Your task to perform on an android device: Open Chrome and go to the settings page Image 0: 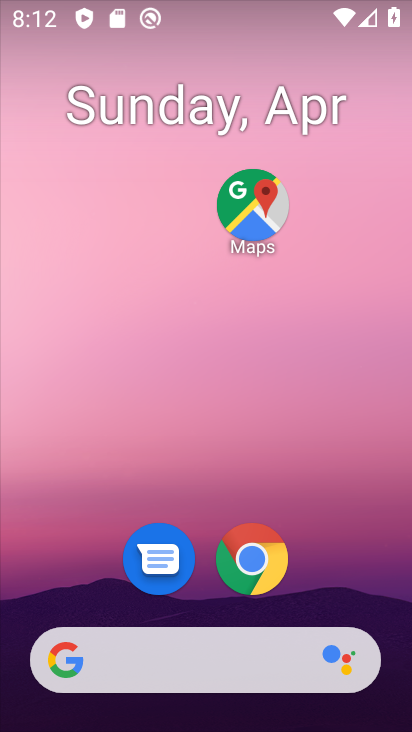
Step 0: click (269, 559)
Your task to perform on an android device: Open Chrome and go to the settings page Image 1: 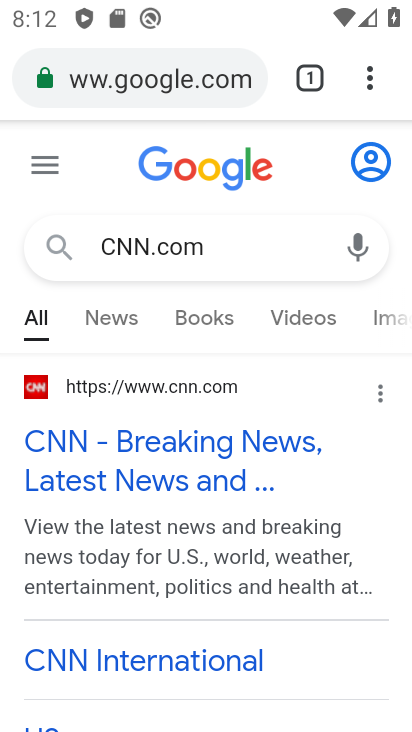
Step 1: click (374, 78)
Your task to perform on an android device: Open Chrome and go to the settings page Image 2: 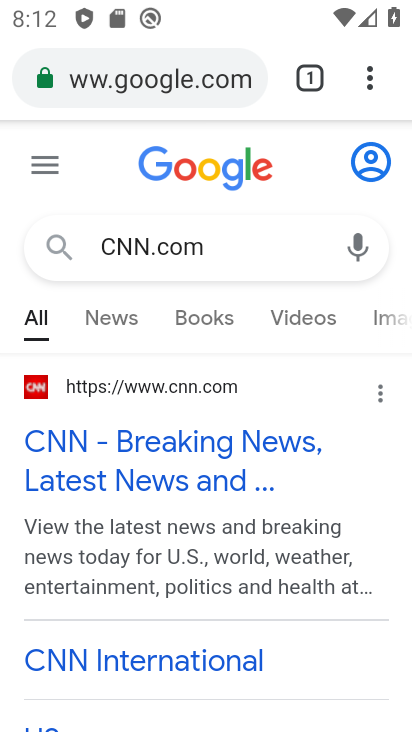
Step 2: click (359, 83)
Your task to perform on an android device: Open Chrome and go to the settings page Image 3: 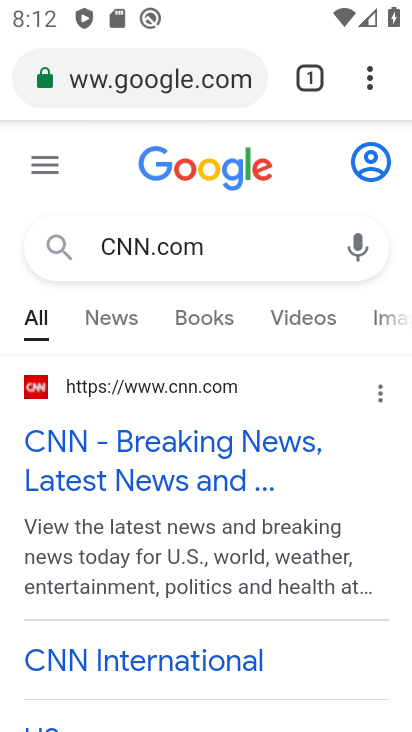
Step 3: click (369, 78)
Your task to perform on an android device: Open Chrome and go to the settings page Image 4: 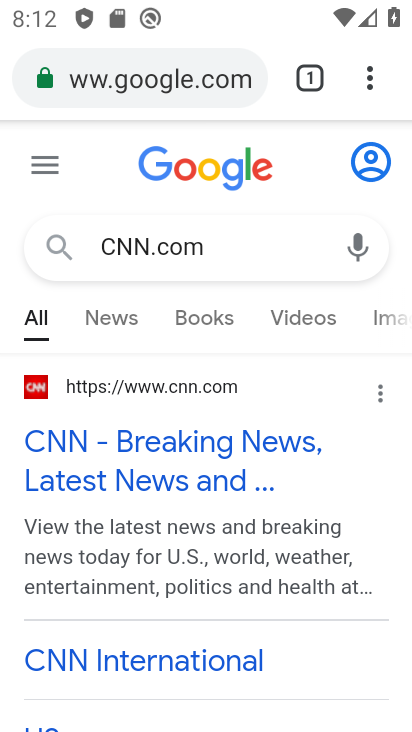
Step 4: click (367, 84)
Your task to perform on an android device: Open Chrome and go to the settings page Image 5: 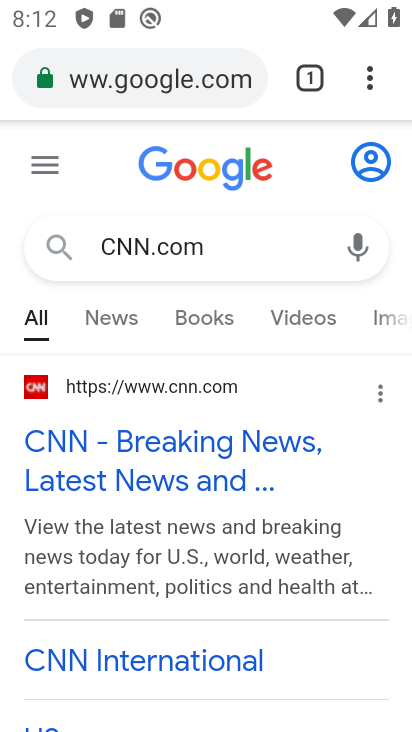
Step 5: click (363, 72)
Your task to perform on an android device: Open Chrome and go to the settings page Image 6: 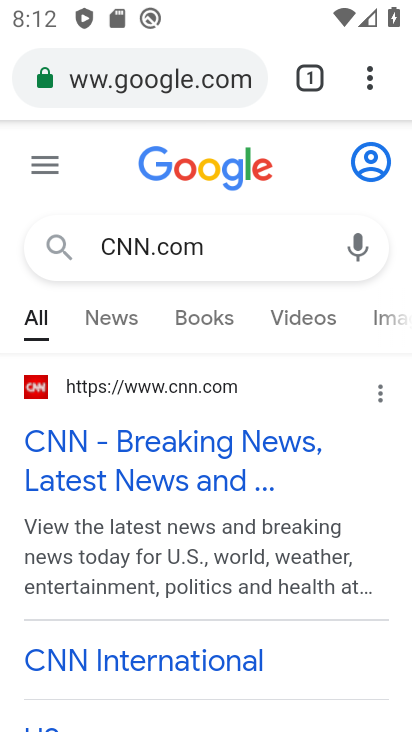
Step 6: drag from (401, 115) to (377, 78)
Your task to perform on an android device: Open Chrome and go to the settings page Image 7: 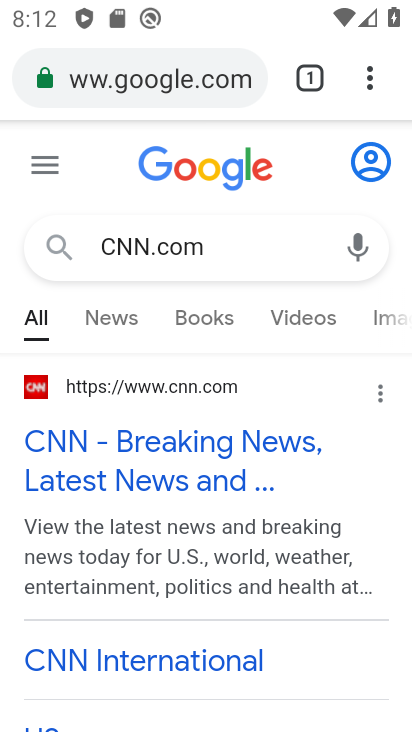
Step 7: drag from (401, 115) to (370, 74)
Your task to perform on an android device: Open Chrome and go to the settings page Image 8: 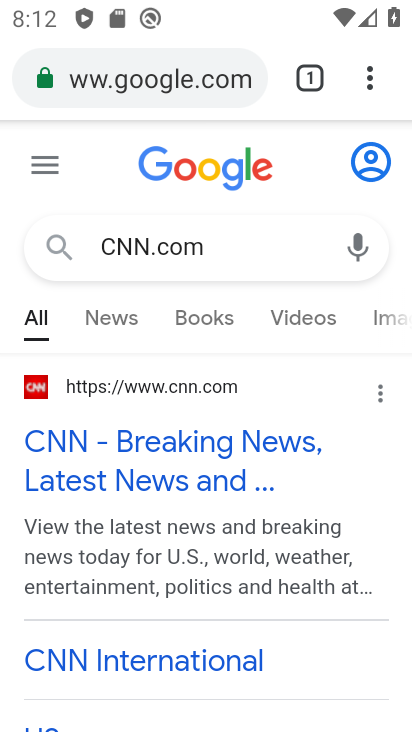
Step 8: click (368, 65)
Your task to perform on an android device: Open Chrome and go to the settings page Image 9: 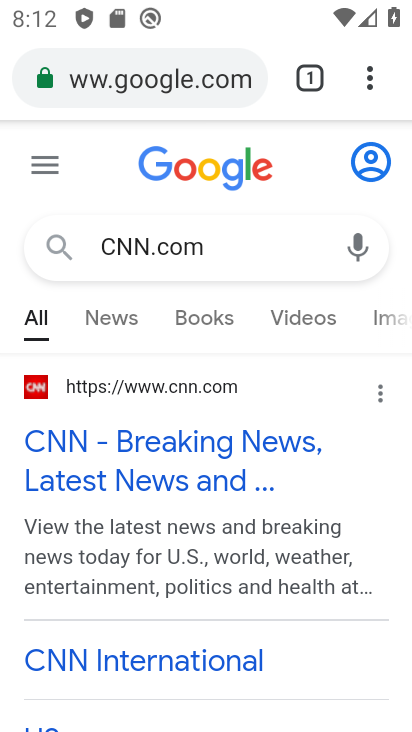
Step 9: click (366, 67)
Your task to perform on an android device: Open Chrome and go to the settings page Image 10: 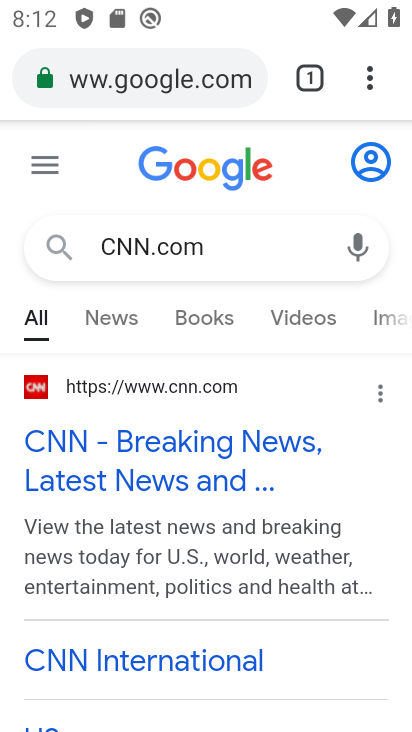
Step 10: click (357, 81)
Your task to perform on an android device: Open Chrome and go to the settings page Image 11: 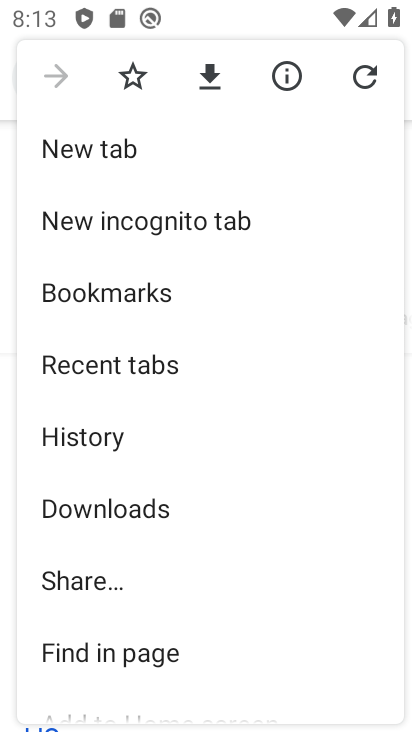
Step 11: drag from (101, 664) to (235, 229)
Your task to perform on an android device: Open Chrome and go to the settings page Image 12: 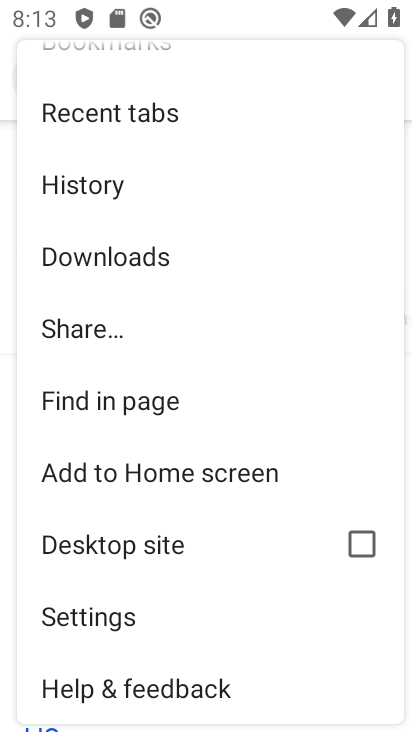
Step 12: click (116, 639)
Your task to perform on an android device: Open Chrome and go to the settings page Image 13: 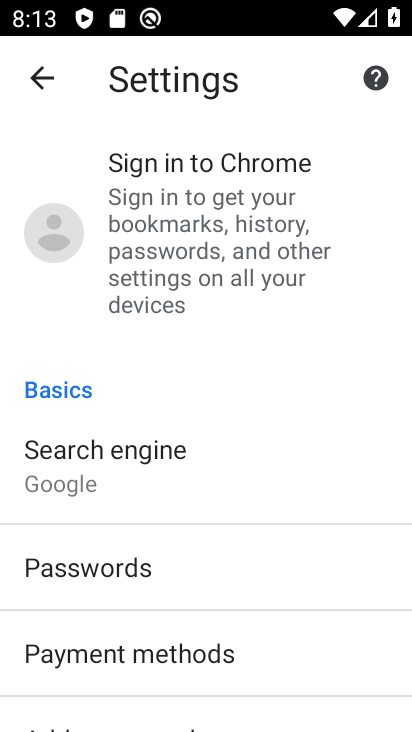
Step 13: task complete